Your task to perform on an android device: set default search engine in the chrome app Image 0: 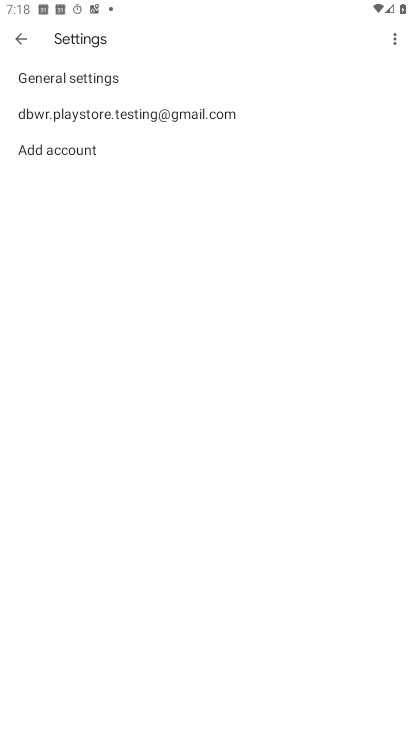
Step 0: press home button
Your task to perform on an android device: set default search engine in the chrome app Image 1: 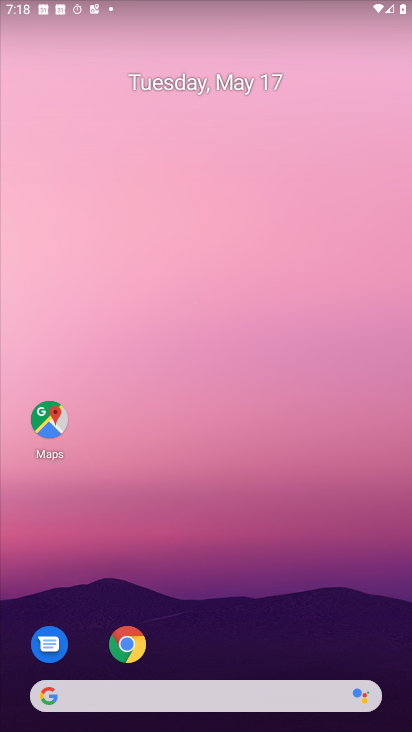
Step 1: drag from (337, 625) to (211, 105)
Your task to perform on an android device: set default search engine in the chrome app Image 2: 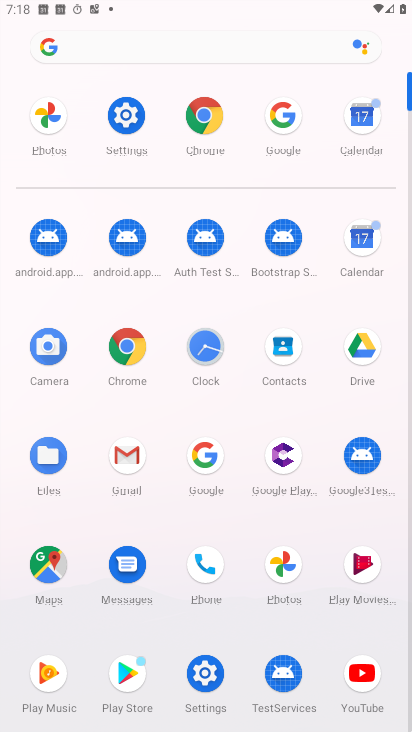
Step 2: click (202, 116)
Your task to perform on an android device: set default search engine in the chrome app Image 3: 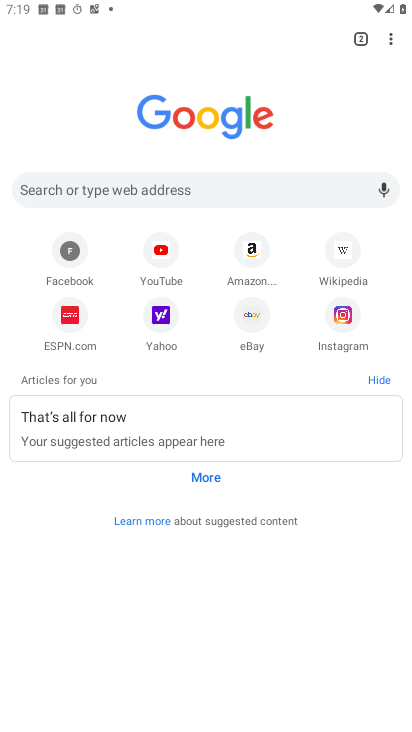
Step 3: click (393, 39)
Your task to perform on an android device: set default search engine in the chrome app Image 4: 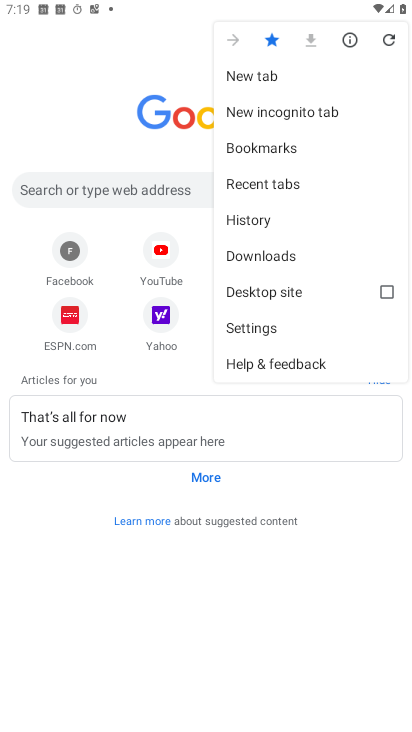
Step 4: click (294, 331)
Your task to perform on an android device: set default search engine in the chrome app Image 5: 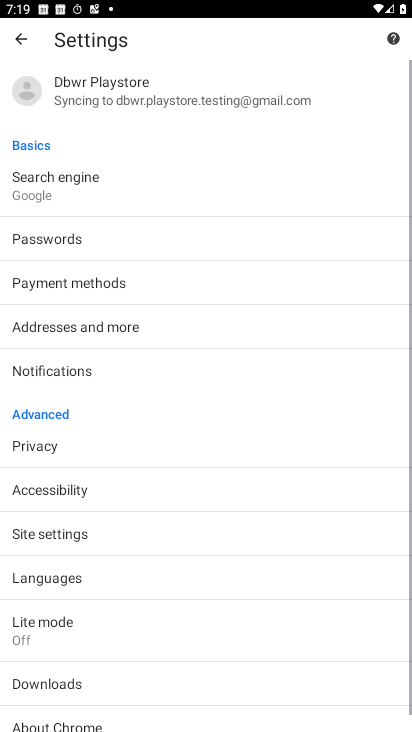
Step 5: click (68, 192)
Your task to perform on an android device: set default search engine in the chrome app Image 6: 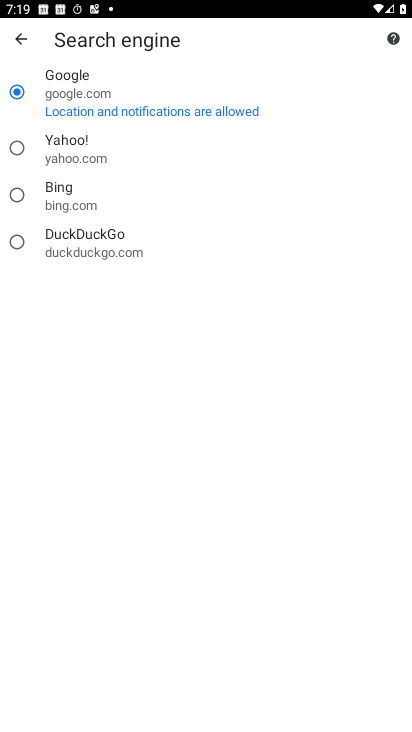
Step 6: click (68, 188)
Your task to perform on an android device: set default search engine in the chrome app Image 7: 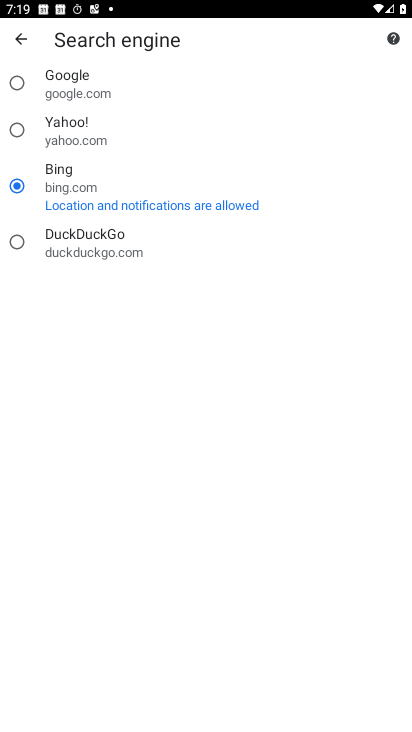
Step 7: task complete